Your task to perform on an android device: manage bookmarks in the chrome app Image 0: 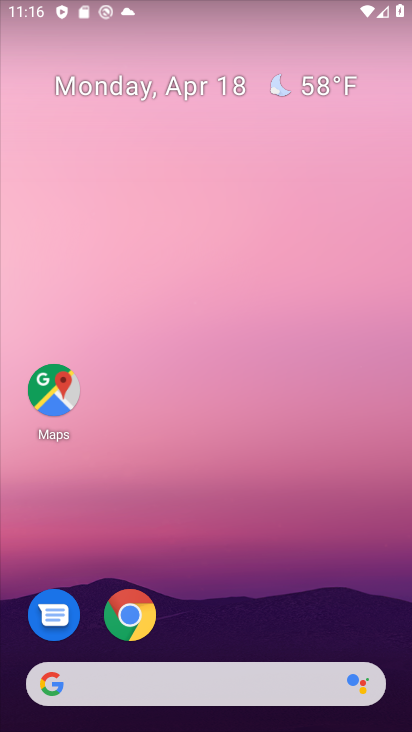
Step 0: drag from (390, 626) to (407, 131)
Your task to perform on an android device: manage bookmarks in the chrome app Image 1: 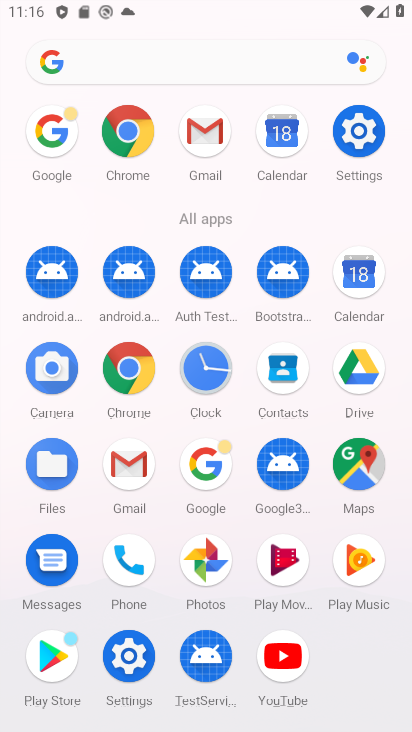
Step 1: click (119, 378)
Your task to perform on an android device: manage bookmarks in the chrome app Image 2: 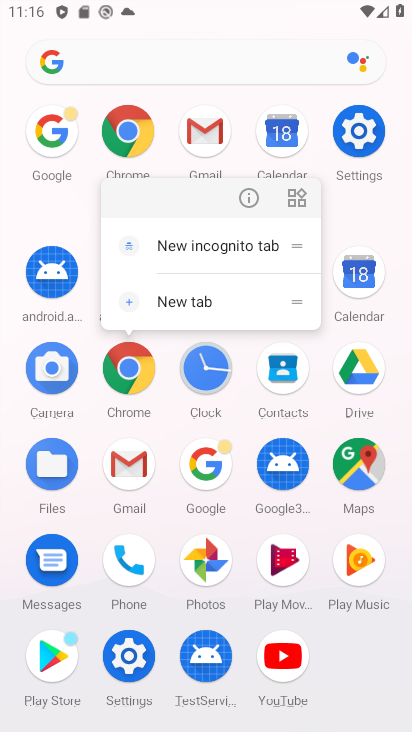
Step 2: click (120, 380)
Your task to perform on an android device: manage bookmarks in the chrome app Image 3: 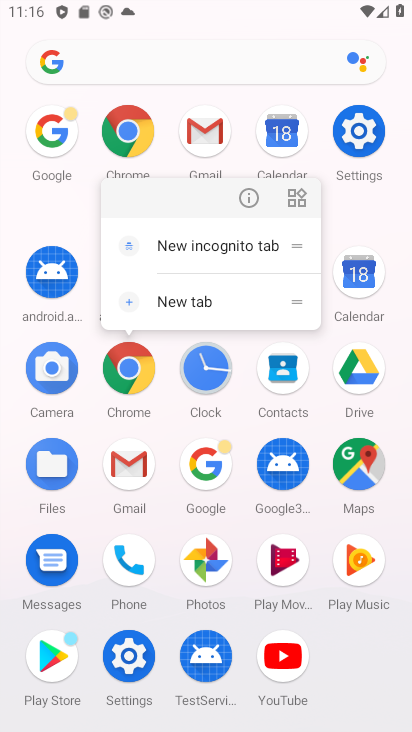
Step 3: click (139, 377)
Your task to perform on an android device: manage bookmarks in the chrome app Image 4: 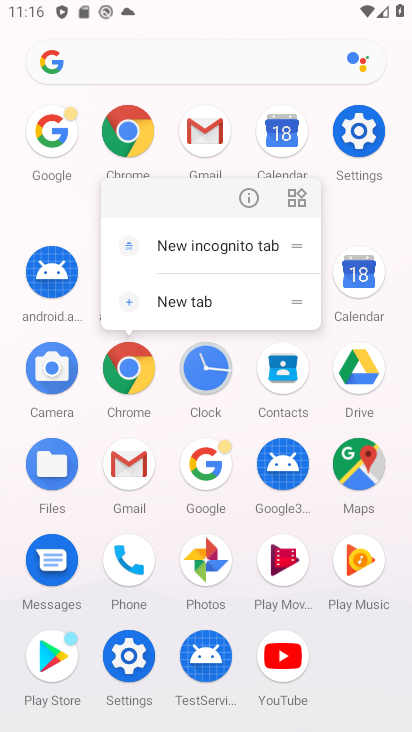
Step 4: click (138, 377)
Your task to perform on an android device: manage bookmarks in the chrome app Image 5: 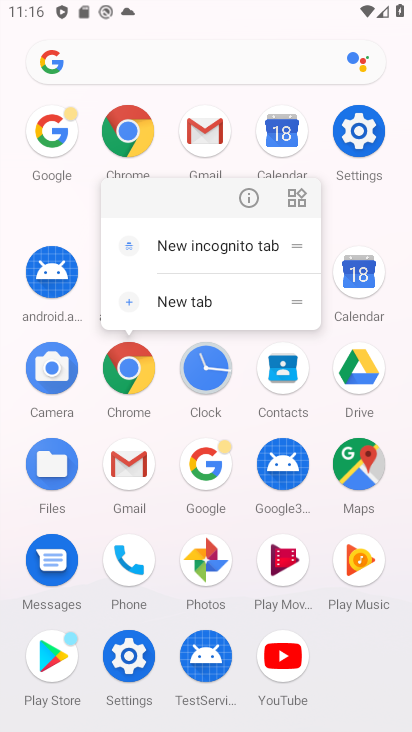
Step 5: click (138, 380)
Your task to perform on an android device: manage bookmarks in the chrome app Image 6: 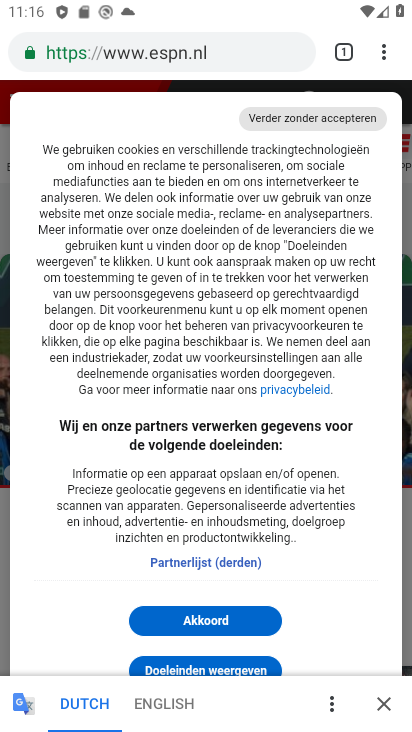
Step 6: click (385, 52)
Your task to perform on an android device: manage bookmarks in the chrome app Image 7: 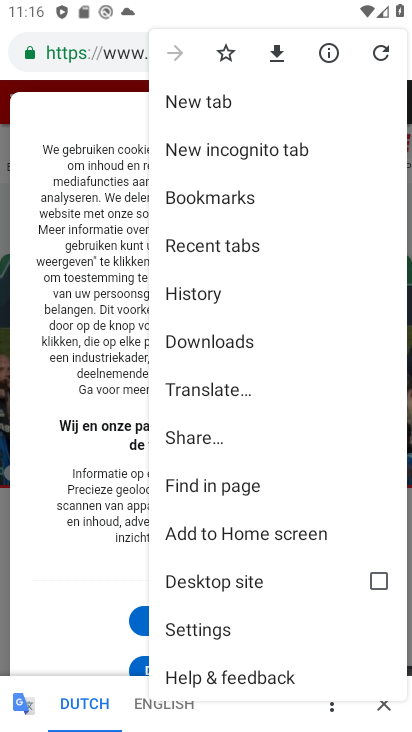
Step 7: click (253, 201)
Your task to perform on an android device: manage bookmarks in the chrome app Image 8: 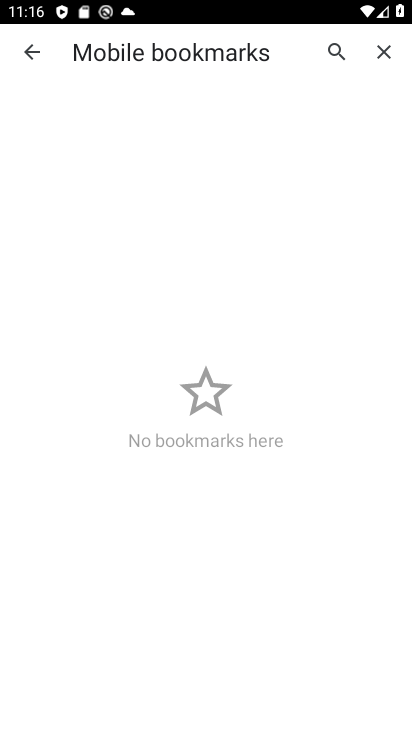
Step 8: task complete